Your task to perform on an android device: change the clock style Image 0: 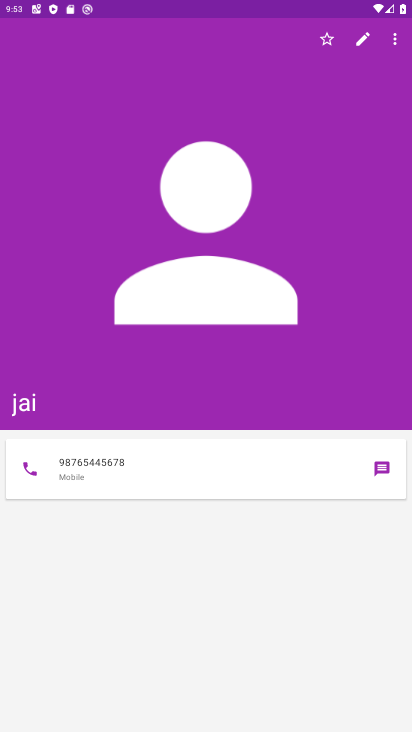
Step 0: press home button
Your task to perform on an android device: change the clock style Image 1: 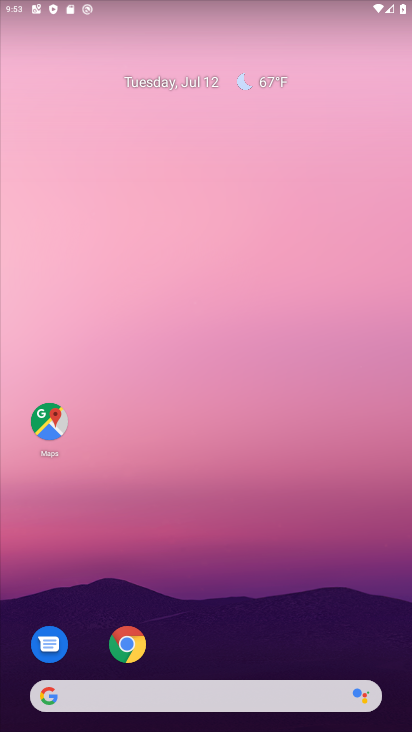
Step 1: drag from (179, 624) to (396, 333)
Your task to perform on an android device: change the clock style Image 2: 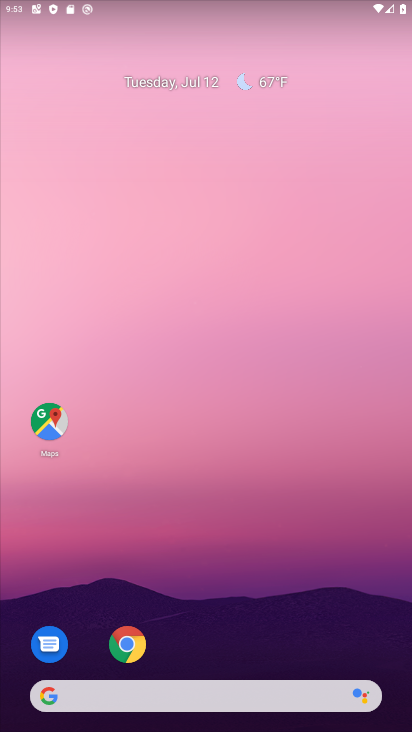
Step 2: drag from (163, 652) to (276, 148)
Your task to perform on an android device: change the clock style Image 3: 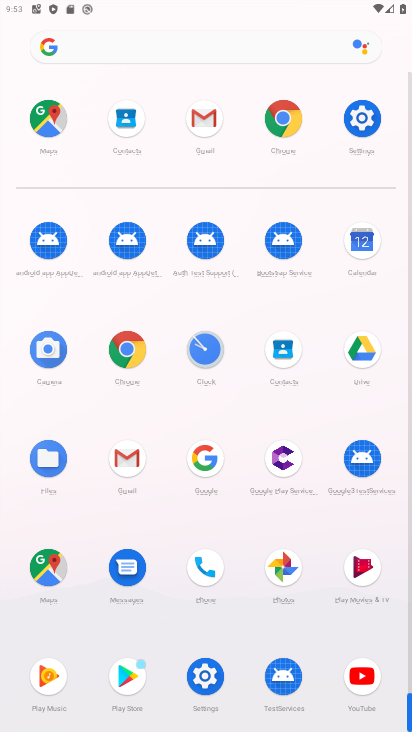
Step 3: click (365, 124)
Your task to perform on an android device: change the clock style Image 4: 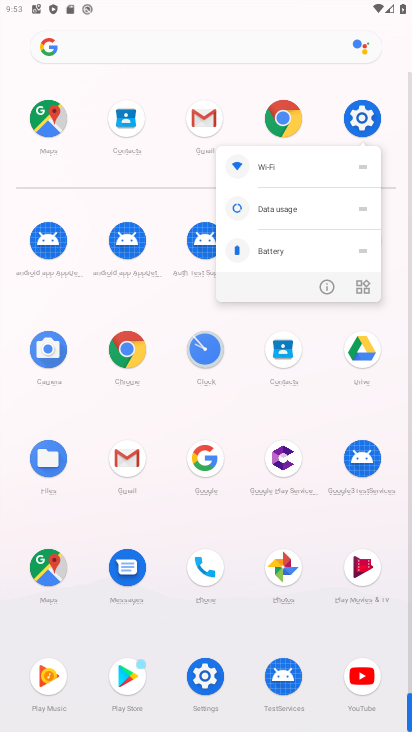
Step 4: click (323, 288)
Your task to perform on an android device: change the clock style Image 5: 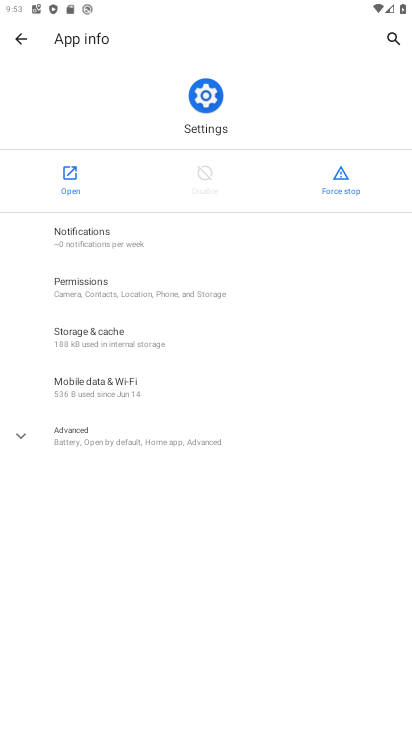
Step 5: click (74, 184)
Your task to perform on an android device: change the clock style Image 6: 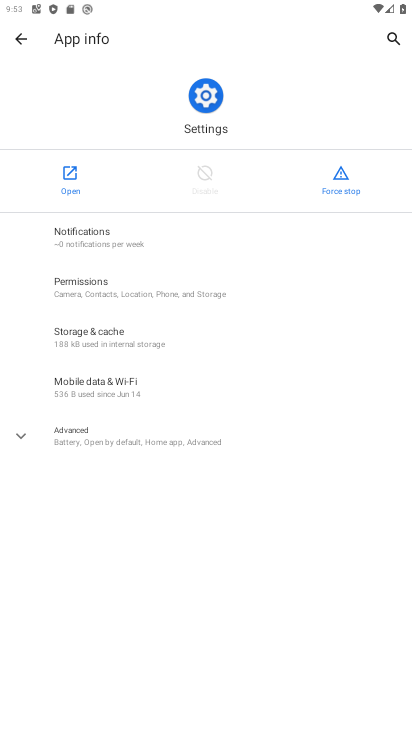
Step 6: click (73, 183)
Your task to perform on an android device: change the clock style Image 7: 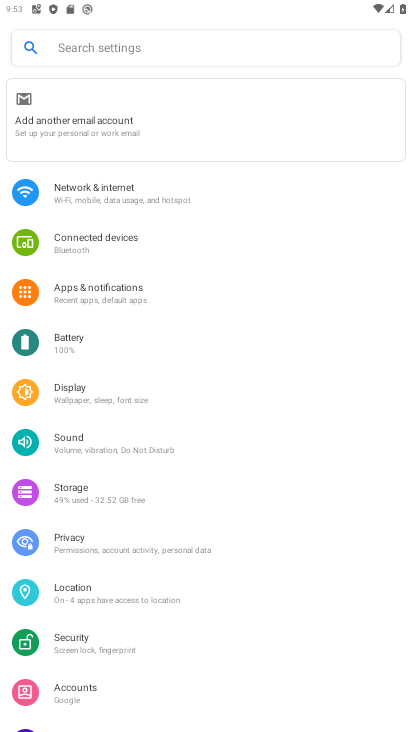
Step 7: press home button
Your task to perform on an android device: change the clock style Image 8: 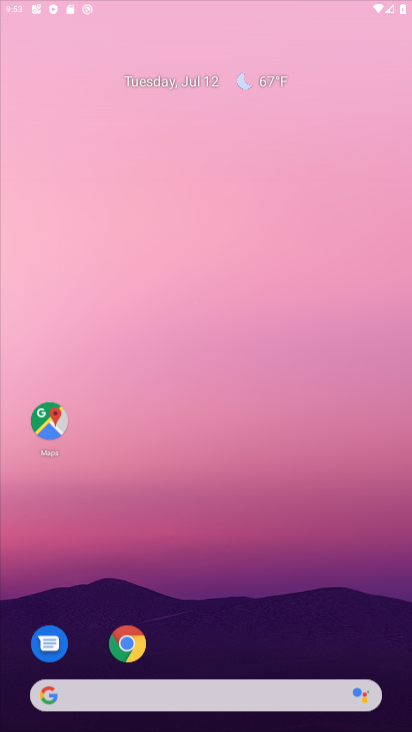
Step 8: drag from (164, 626) to (250, 98)
Your task to perform on an android device: change the clock style Image 9: 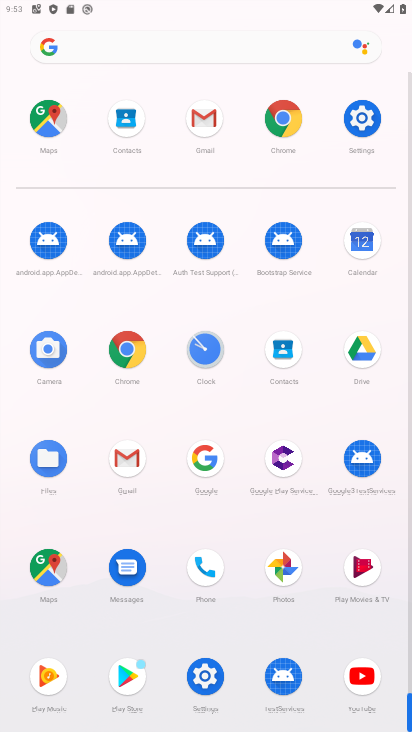
Step 9: click (205, 354)
Your task to perform on an android device: change the clock style Image 10: 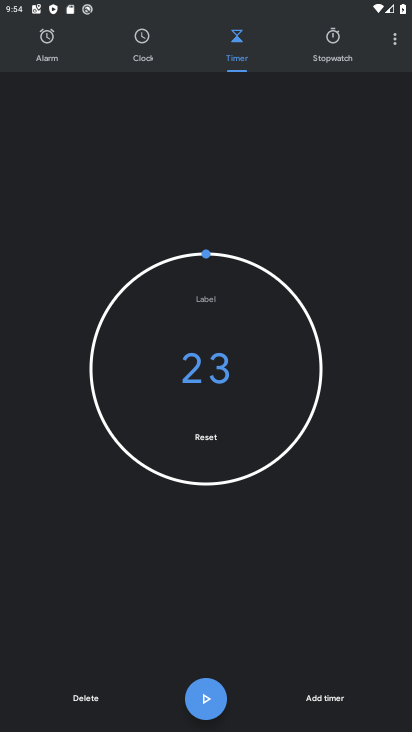
Step 10: click (393, 41)
Your task to perform on an android device: change the clock style Image 11: 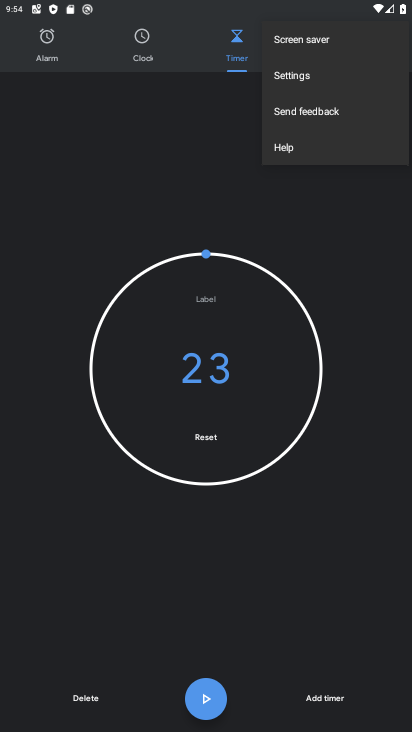
Step 11: click (306, 73)
Your task to perform on an android device: change the clock style Image 12: 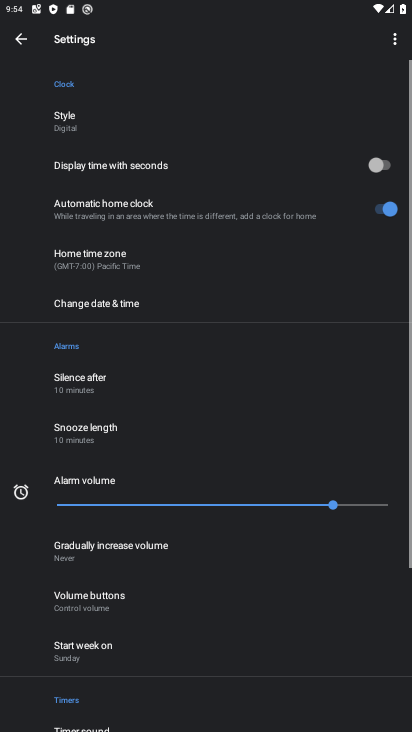
Step 12: click (106, 131)
Your task to perform on an android device: change the clock style Image 13: 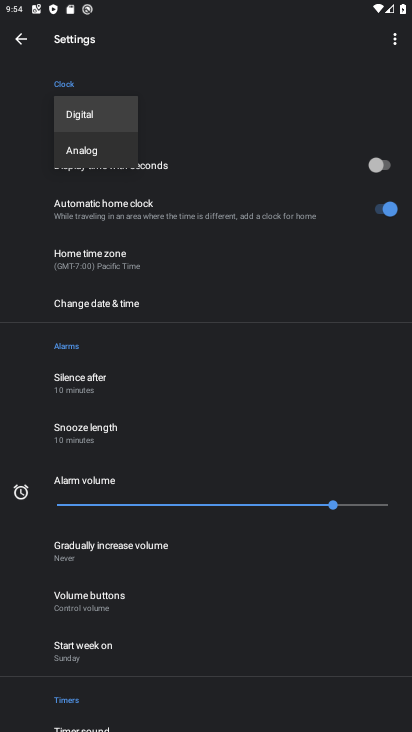
Step 13: click (104, 148)
Your task to perform on an android device: change the clock style Image 14: 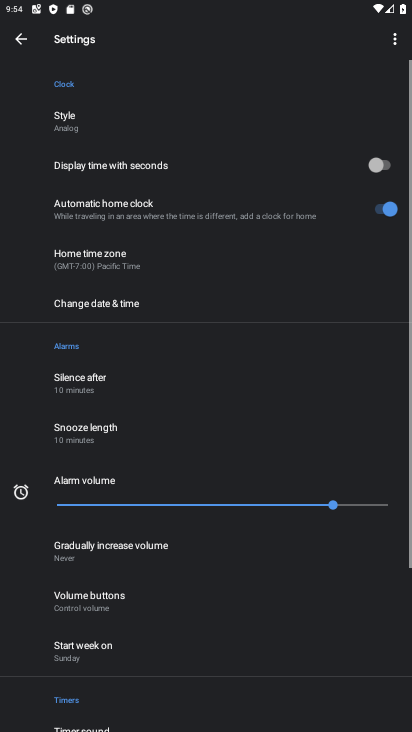
Step 14: task complete